Your task to perform on an android device: Open Chrome and go to the settings page Image 0: 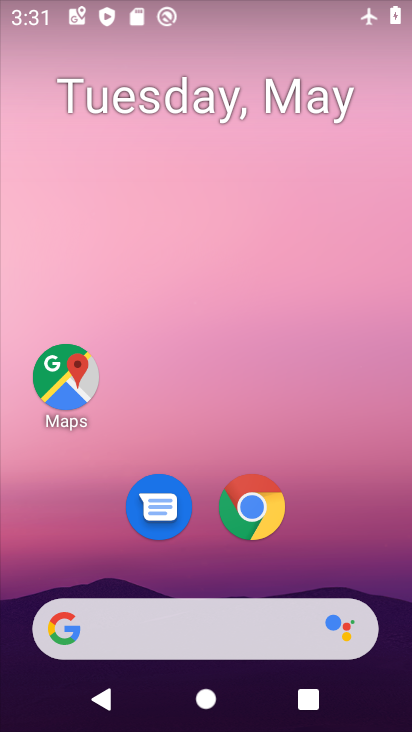
Step 0: click (255, 510)
Your task to perform on an android device: Open Chrome and go to the settings page Image 1: 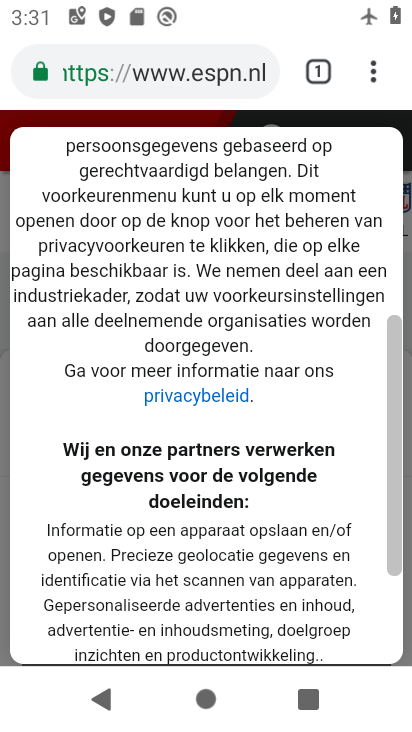
Step 1: click (359, 74)
Your task to perform on an android device: Open Chrome and go to the settings page Image 2: 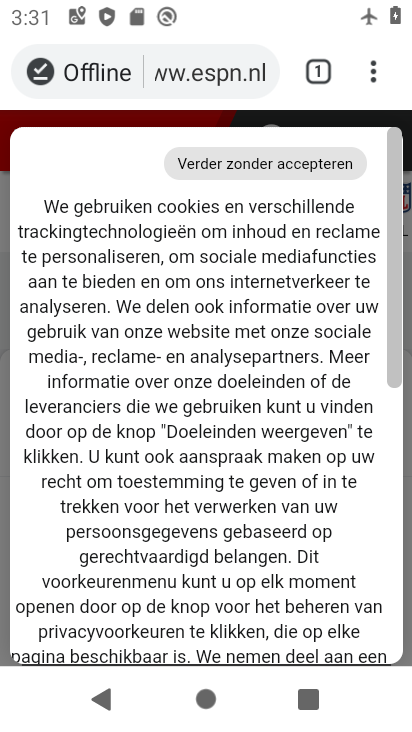
Step 2: click (372, 73)
Your task to perform on an android device: Open Chrome and go to the settings page Image 3: 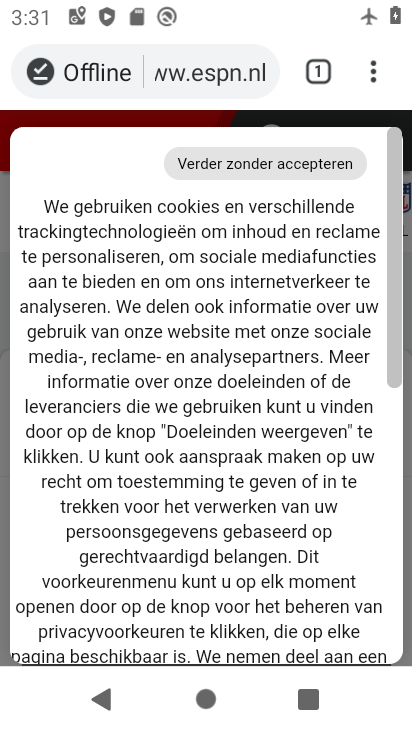
Step 3: click (371, 82)
Your task to perform on an android device: Open Chrome and go to the settings page Image 4: 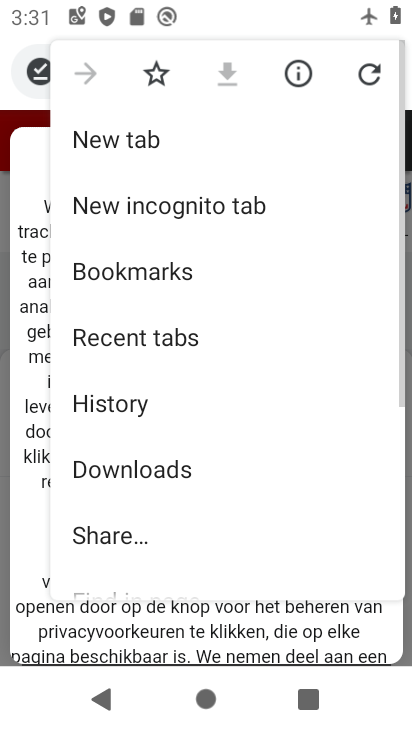
Step 4: drag from (182, 504) to (186, 162)
Your task to perform on an android device: Open Chrome and go to the settings page Image 5: 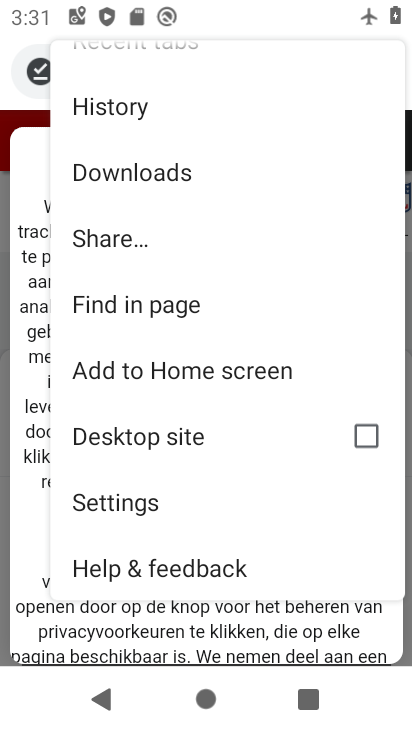
Step 5: click (112, 511)
Your task to perform on an android device: Open Chrome and go to the settings page Image 6: 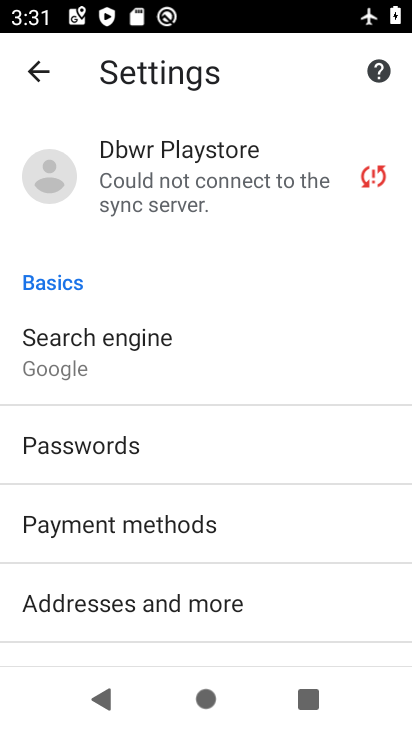
Step 6: task complete